Your task to perform on an android device: open wifi settings Image 0: 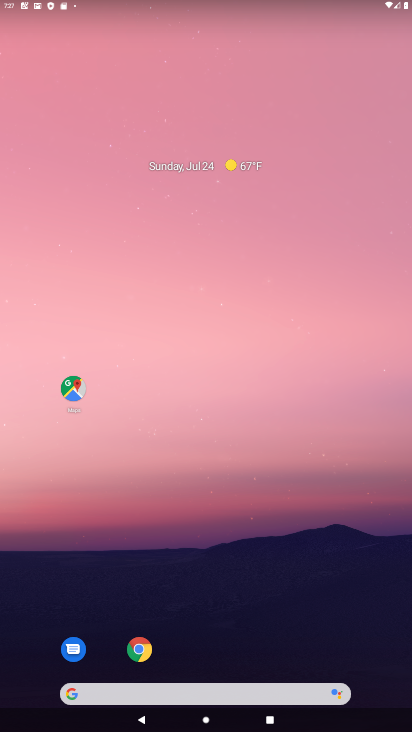
Step 0: drag from (220, 660) to (99, 206)
Your task to perform on an android device: open wifi settings Image 1: 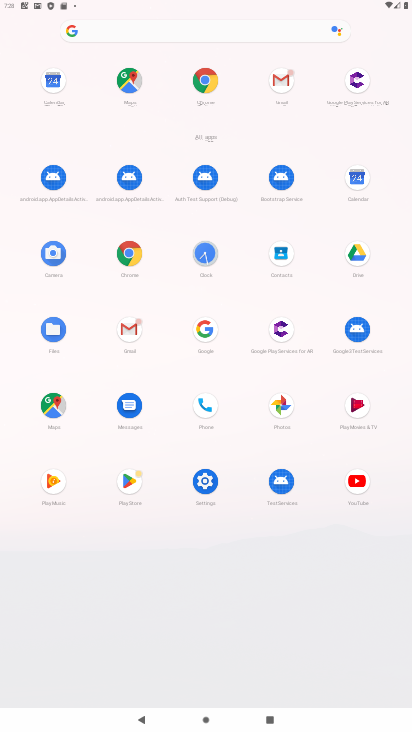
Step 1: click (205, 483)
Your task to perform on an android device: open wifi settings Image 2: 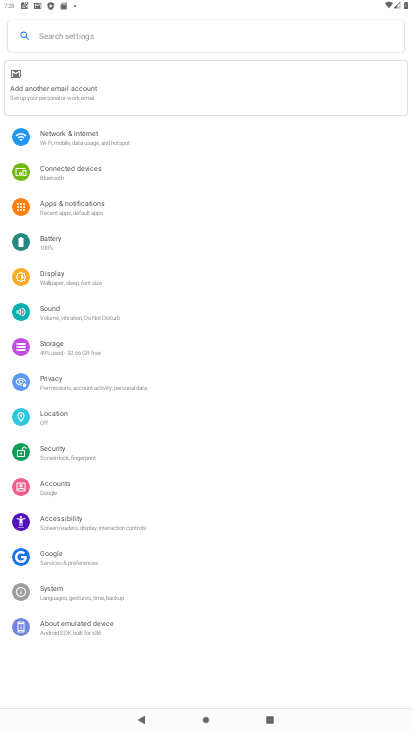
Step 2: click (60, 142)
Your task to perform on an android device: open wifi settings Image 3: 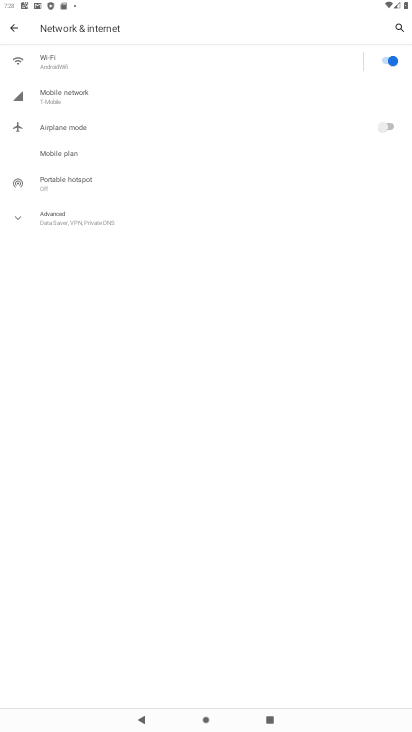
Step 3: click (65, 57)
Your task to perform on an android device: open wifi settings Image 4: 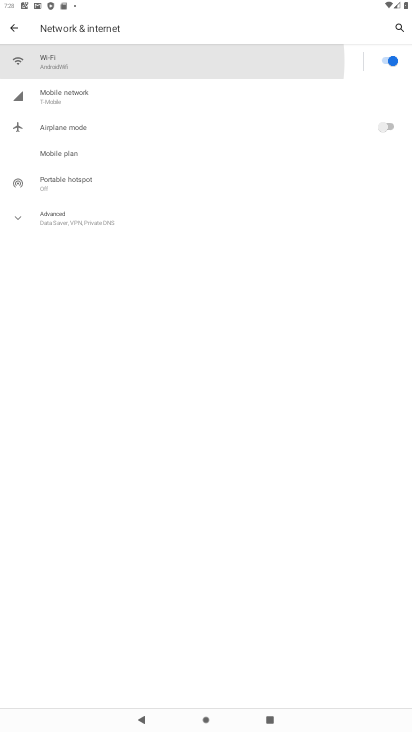
Step 4: click (65, 57)
Your task to perform on an android device: open wifi settings Image 5: 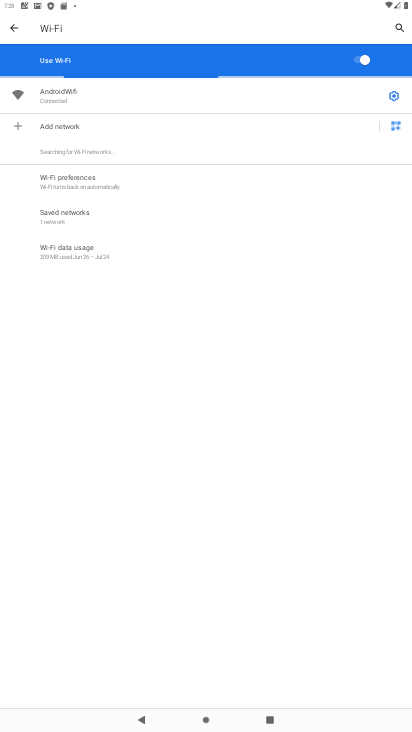
Step 5: click (364, 56)
Your task to perform on an android device: open wifi settings Image 6: 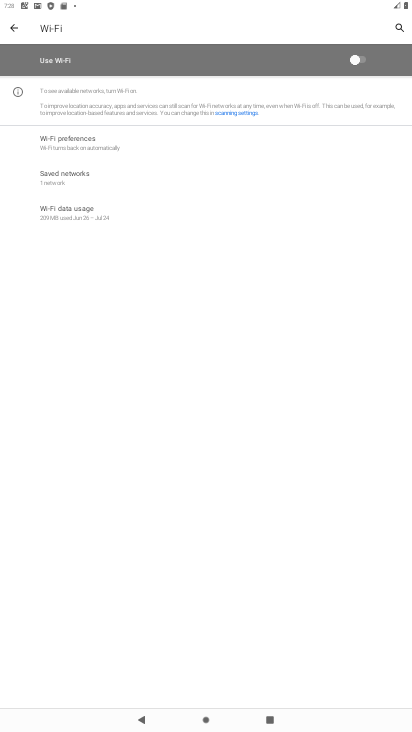
Step 6: task complete